Your task to perform on an android device: turn off notifications in google photos Image 0: 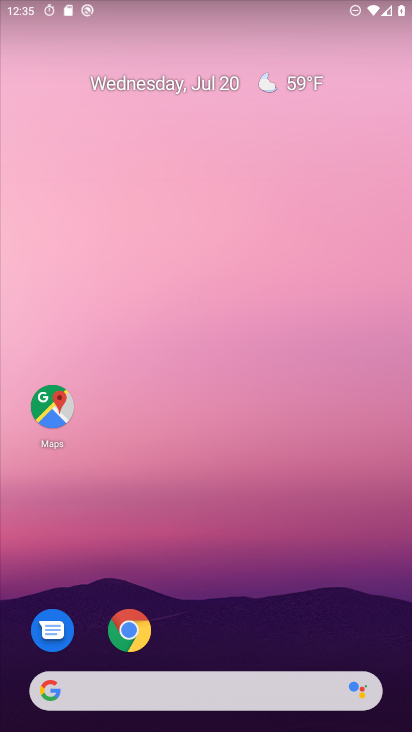
Step 0: drag from (247, 634) to (358, 12)
Your task to perform on an android device: turn off notifications in google photos Image 1: 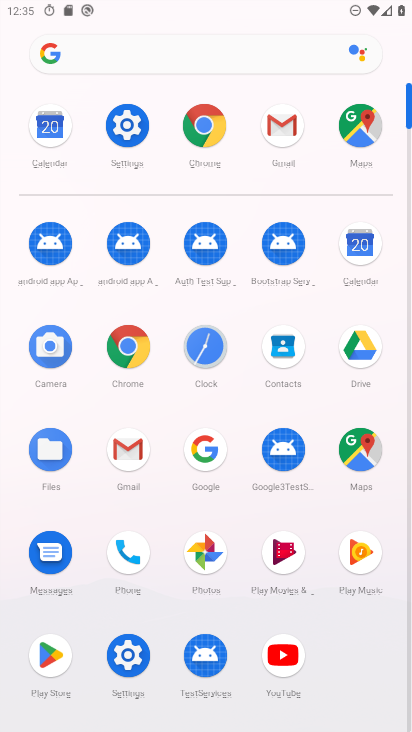
Step 1: click (205, 558)
Your task to perform on an android device: turn off notifications in google photos Image 2: 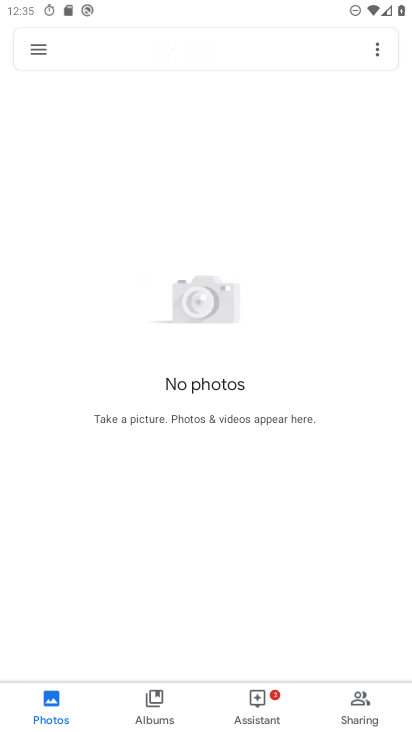
Step 2: click (32, 54)
Your task to perform on an android device: turn off notifications in google photos Image 3: 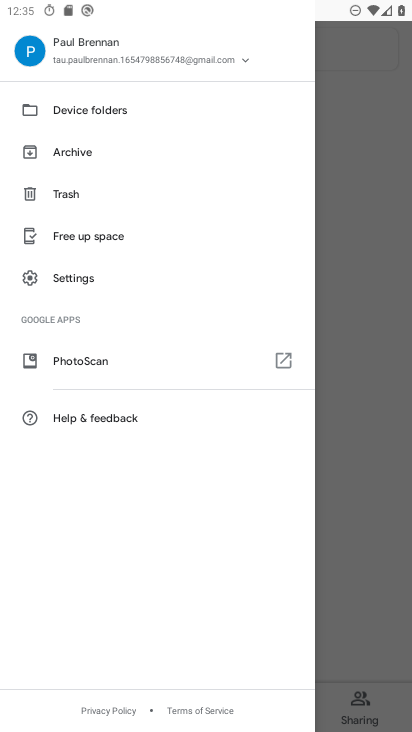
Step 3: click (81, 286)
Your task to perform on an android device: turn off notifications in google photos Image 4: 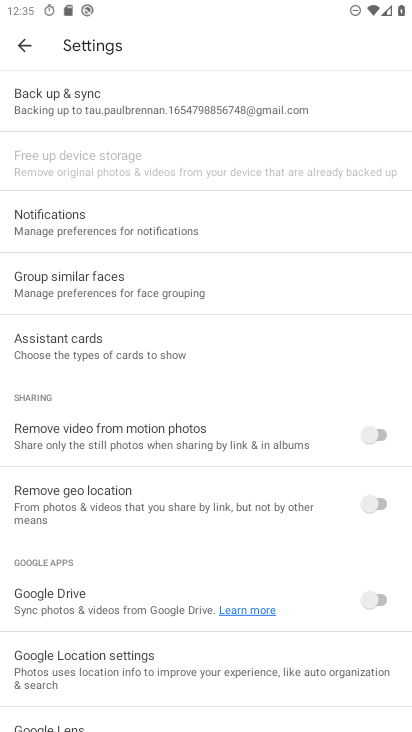
Step 4: click (73, 236)
Your task to perform on an android device: turn off notifications in google photos Image 5: 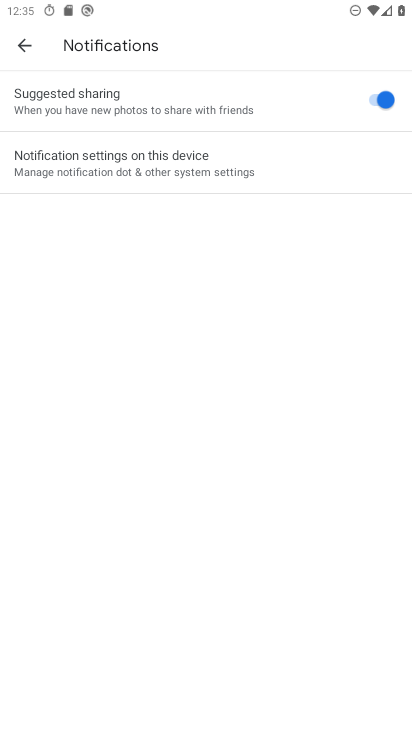
Step 5: click (356, 147)
Your task to perform on an android device: turn off notifications in google photos Image 6: 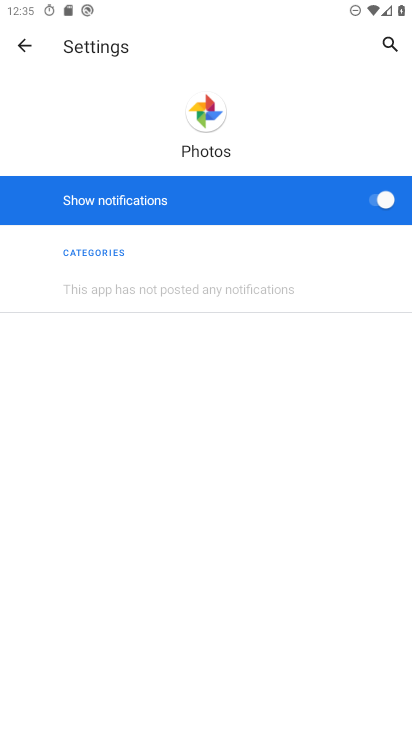
Step 6: click (375, 202)
Your task to perform on an android device: turn off notifications in google photos Image 7: 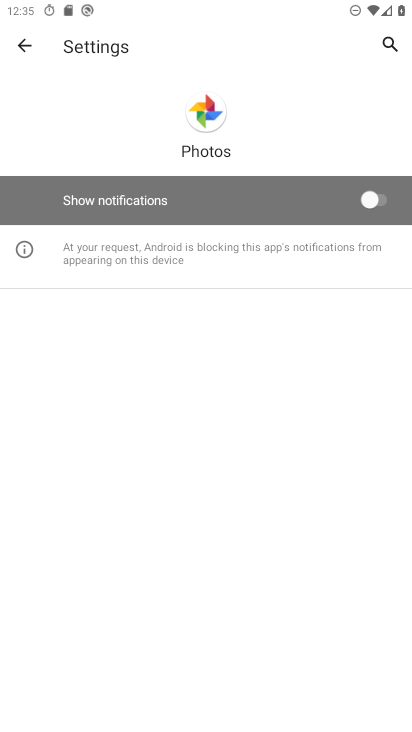
Step 7: task complete